Your task to perform on an android device: Open the Play Movies app and select the watchlist tab. Image 0: 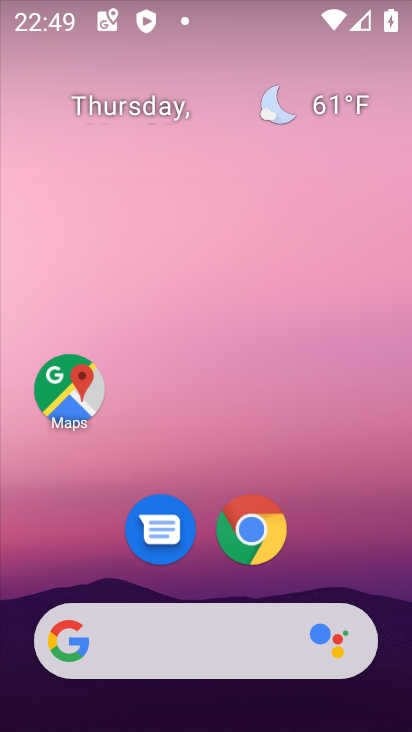
Step 0: drag from (363, 532) to (321, 144)
Your task to perform on an android device: Open the Play Movies app and select the watchlist tab. Image 1: 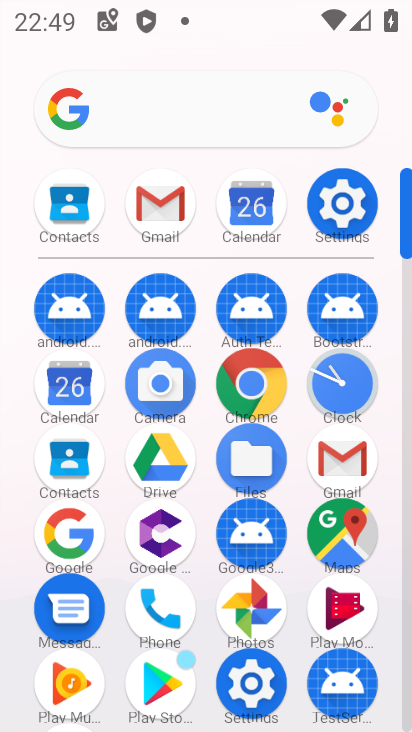
Step 1: click (336, 615)
Your task to perform on an android device: Open the Play Movies app and select the watchlist tab. Image 2: 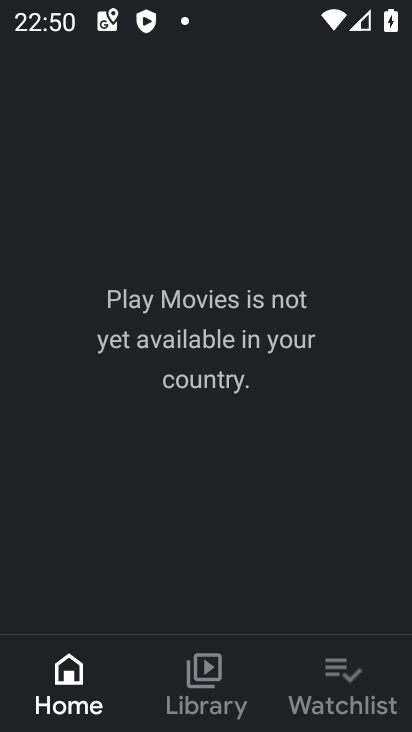
Step 2: click (319, 685)
Your task to perform on an android device: Open the Play Movies app and select the watchlist tab. Image 3: 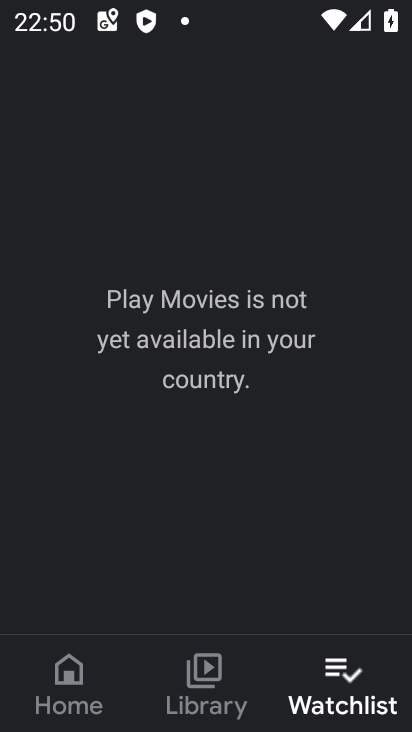
Step 3: task complete